Your task to perform on an android device: Go to Google Image 0: 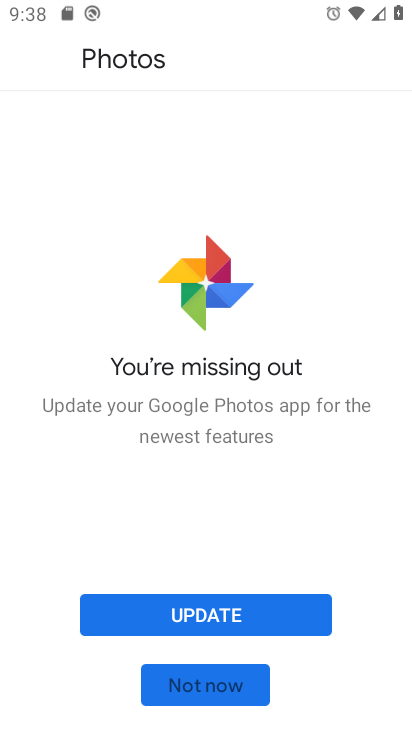
Step 0: press home button
Your task to perform on an android device: Go to Google Image 1: 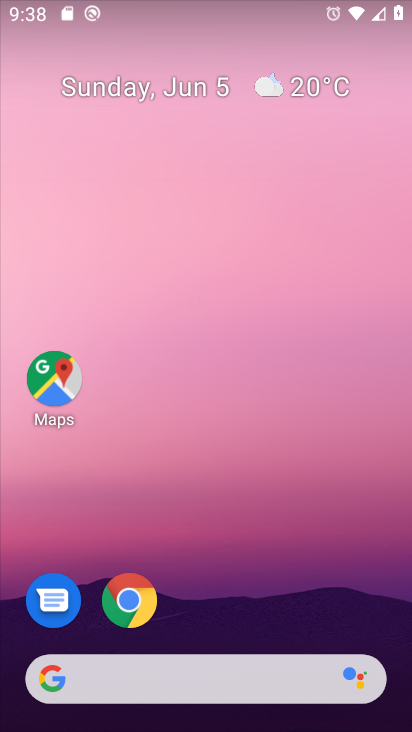
Step 1: click (261, 681)
Your task to perform on an android device: Go to Google Image 2: 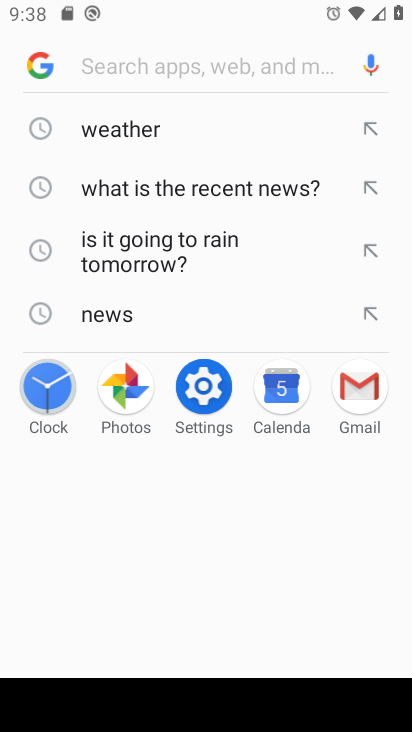
Step 2: click (31, 56)
Your task to perform on an android device: Go to Google Image 3: 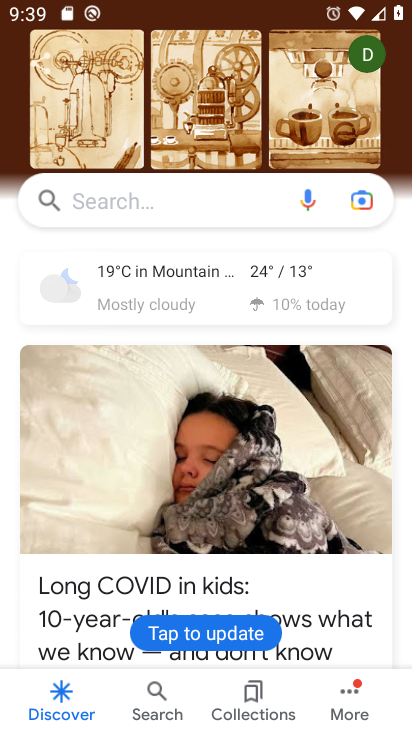
Step 3: task complete